Your task to perform on an android device: What's the weather going to be this weekend? Image 0: 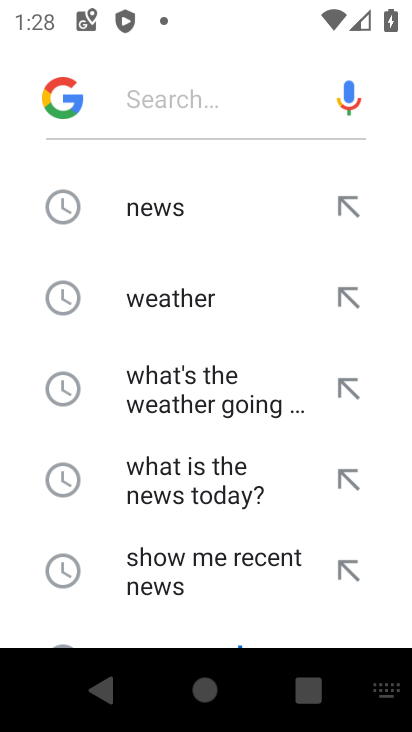
Step 0: click (155, 411)
Your task to perform on an android device: What's the weather going to be this weekend? Image 1: 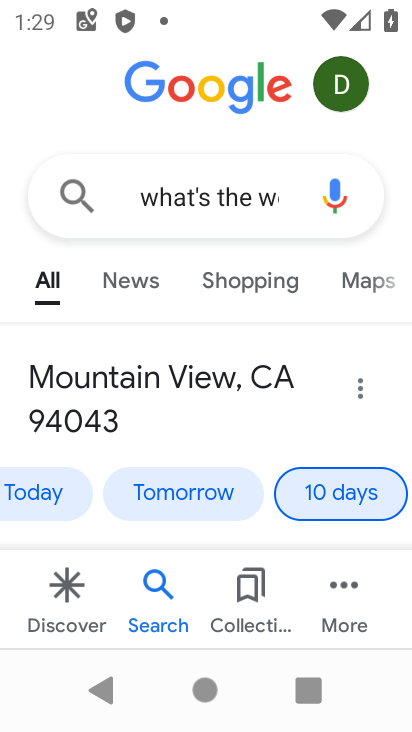
Step 1: task complete